Your task to perform on an android device: Open accessibility settings Image 0: 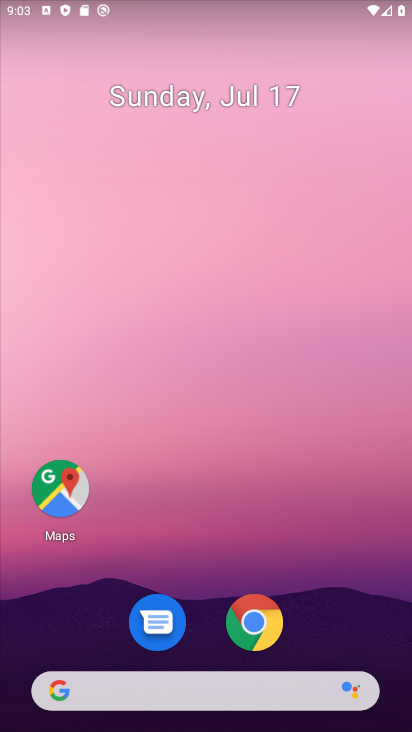
Step 0: drag from (194, 386) to (239, 72)
Your task to perform on an android device: Open accessibility settings Image 1: 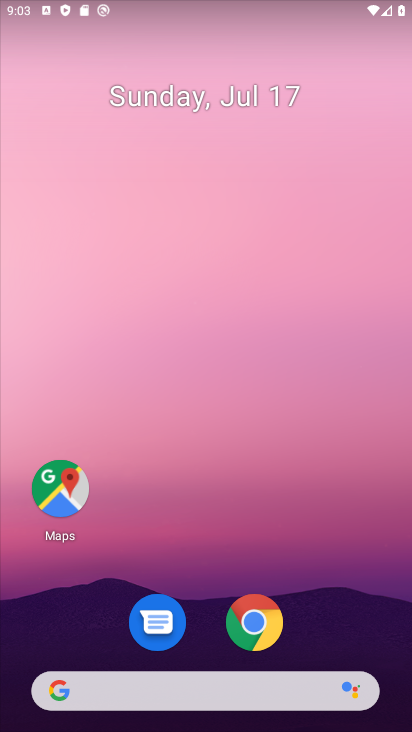
Step 1: drag from (266, 726) to (321, 116)
Your task to perform on an android device: Open accessibility settings Image 2: 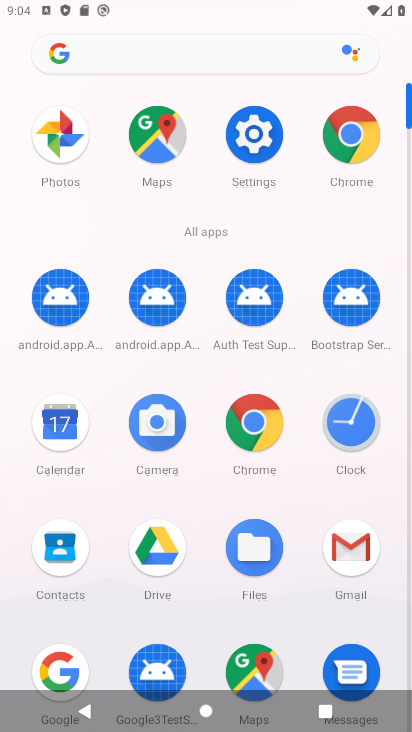
Step 2: click (251, 123)
Your task to perform on an android device: Open accessibility settings Image 3: 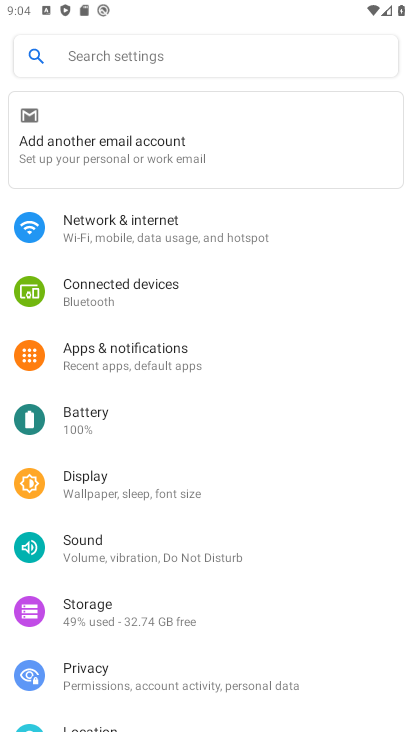
Step 3: drag from (244, 505) to (243, 47)
Your task to perform on an android device: Open accessibility settings Image 4: 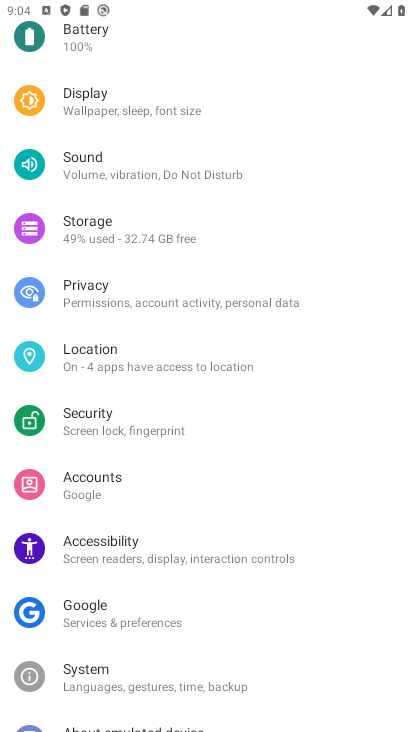
Step 4: drag from (265, 601) to (216, 4)
Your task to perform on an android device: Open accessibility settings Image 5: 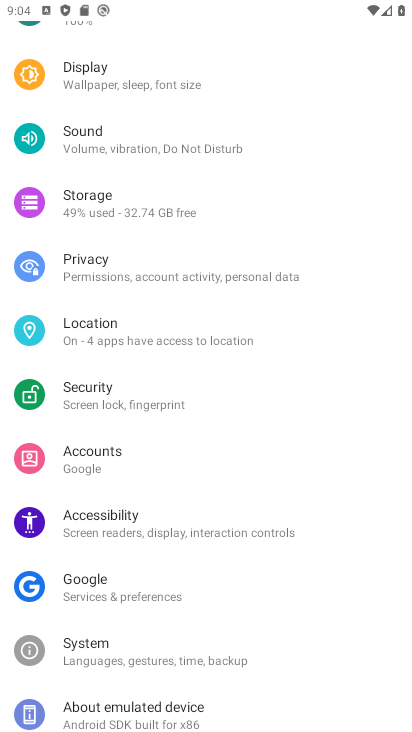
Step 5: click (169, 530)
Your task to perform on an android device: Open accessibility settings Image 6: 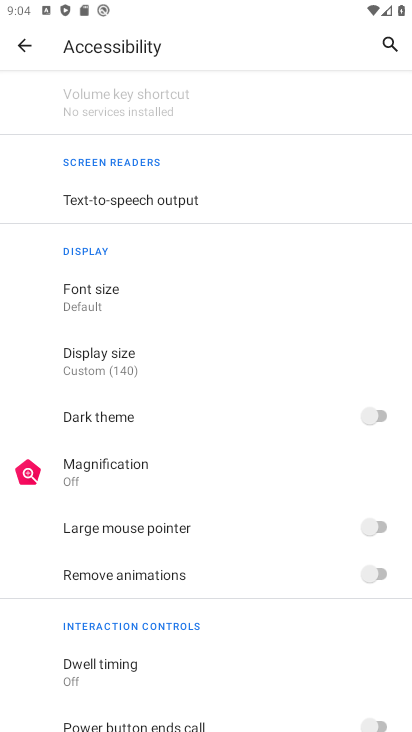
Step 6: task complete